Your task to perform on an android device: check storage Image 0: 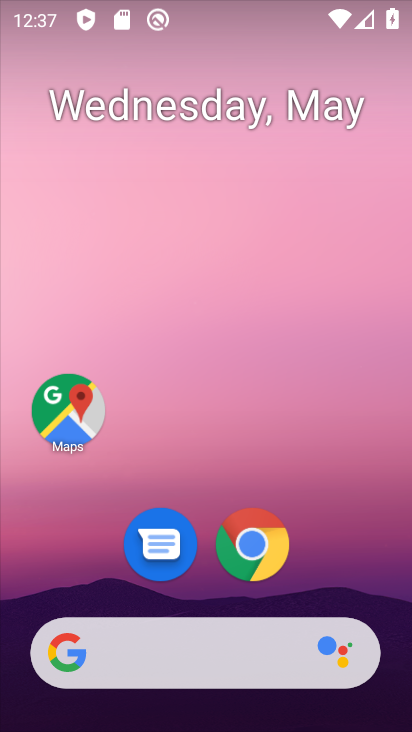
Step 0: drag from (320, 461) to (306, 208)
Your task to perform on an android device: check storage Image 1: 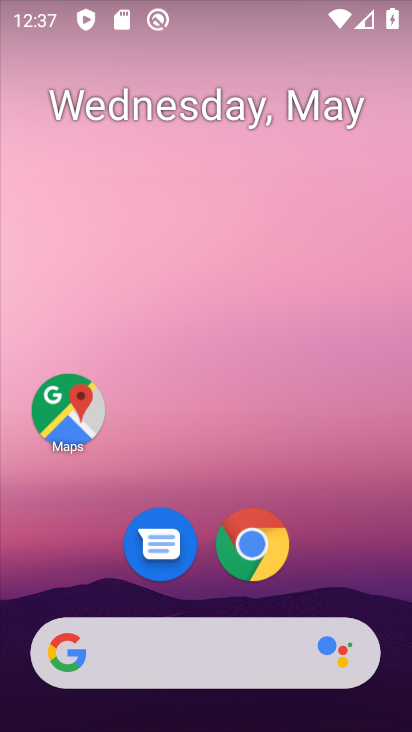
Step 1: drag from (318, 509) to (321, 160)
Your task to perform on an android device: check storage Image 2: 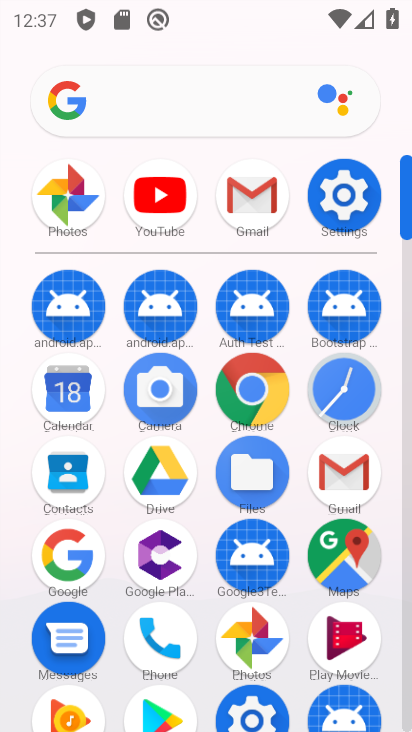
Step 2: click (338, 224)
Your task to perform on an android device: check storage Image 3: 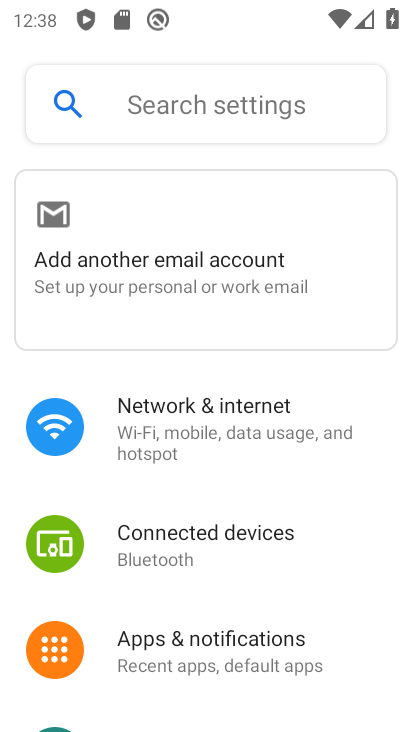
Step 3: drag from (225, 532) to (238, 216)
Your task to perform on an android device: check storage Image 4: 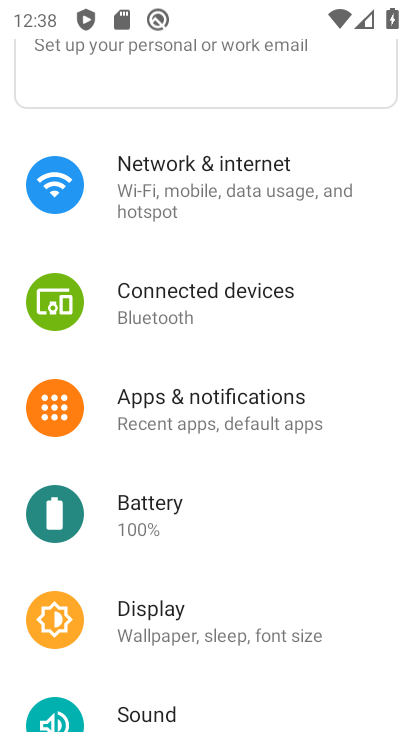
Step 4: drag from (206, 588) to (249, 284)
Your task to perform on an android device: check storage Image 5: 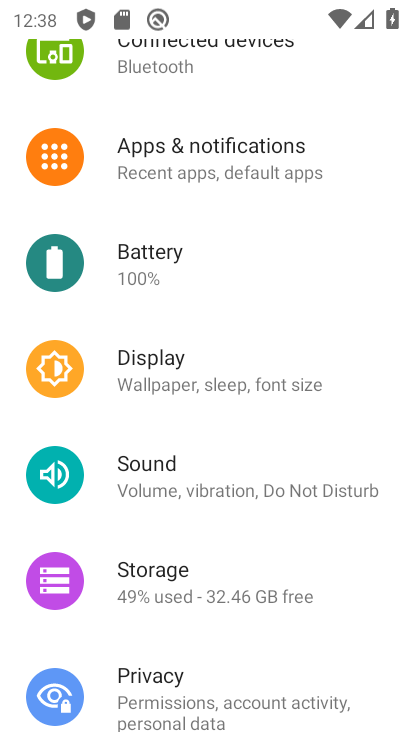
Step 5: click (191, 569)
Your task to perform on an android device: check storage Image 6: 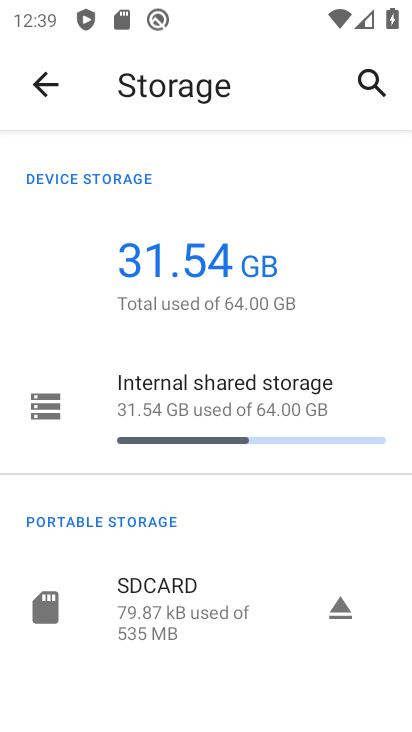
Step 6: task complete